Your task to perform on an android device: Go to privacy settings Image 0: 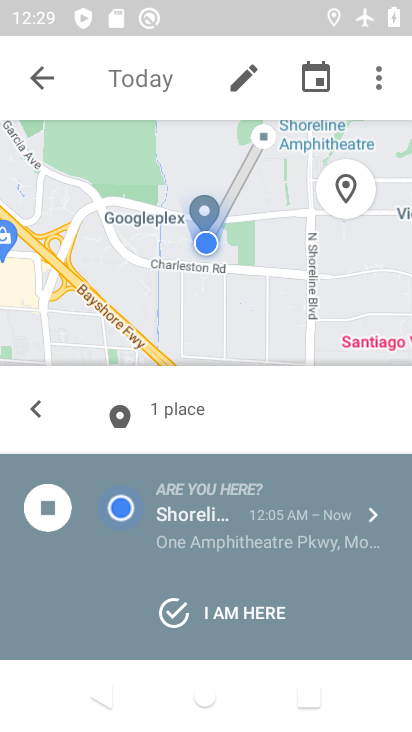
Step 0: press home button
Your task to perform on an android device: Go to privacy settings Image 1: 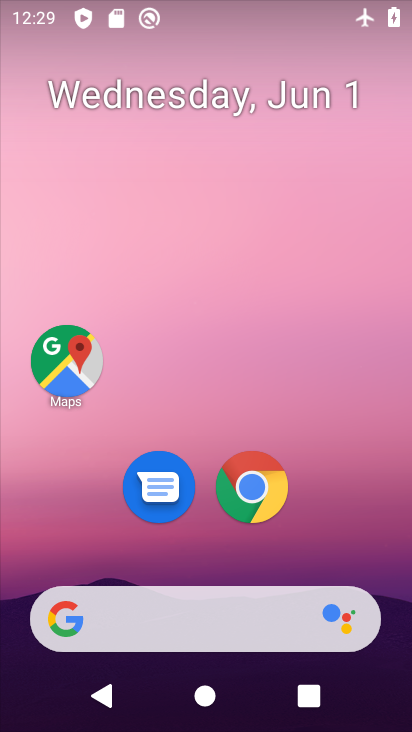
Step 1: drag from (222, 531) to (238, 122)
Your task to perform on an android device: Go to privacy settings Image 2: 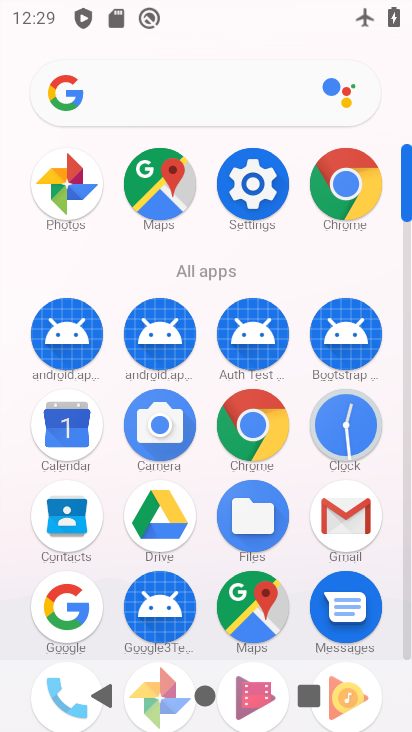
Step 2: click (226, 200)
Your task to perform on an android device: Go to privacy settings Image 3: 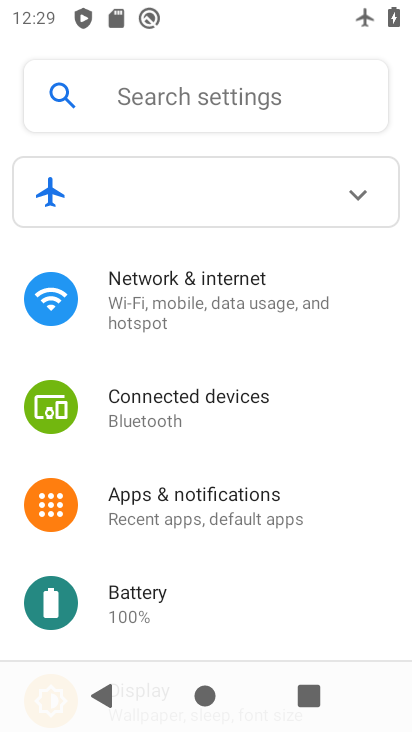
Step 3: drag from (236, 562) to (281, 286)
Your task to perform on an android device: Go to privacy settings Image 4: 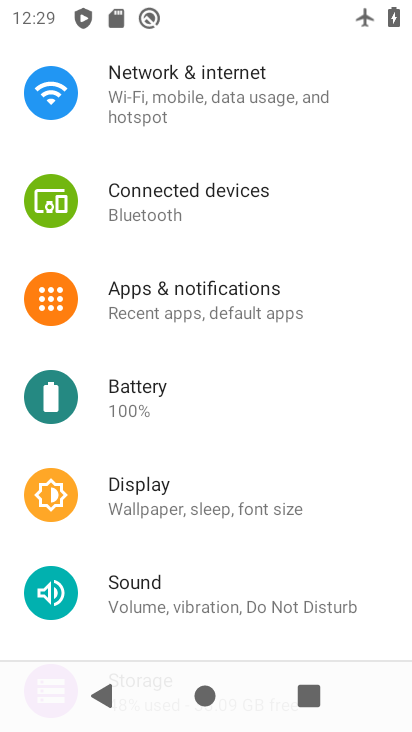
Step 4: drag from (177, 512) to (228, 178)
Your task to perform on an android device: Go to privacy settings Image 5: 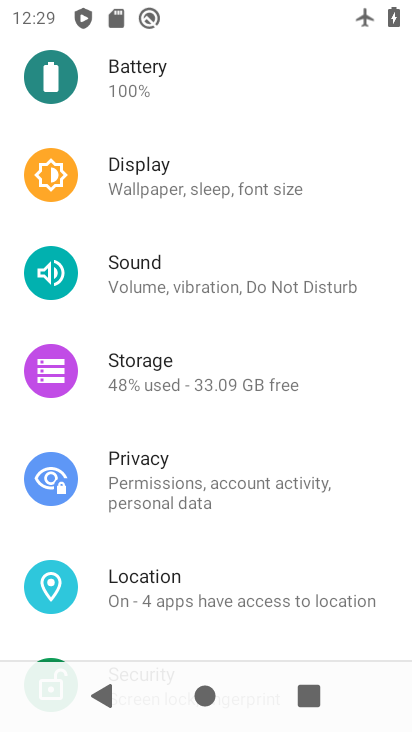
Step 5: click (163, 492)
Your task to perform on an android device: Go to privacy settings Image 6: 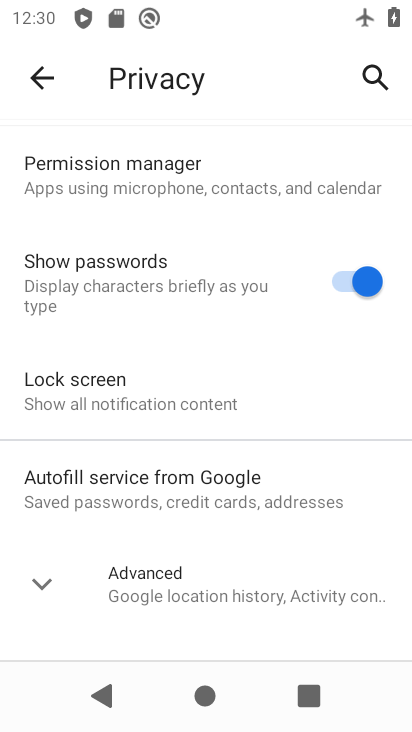
Step 6: task complete